Your task to perform on an android device: Empty the shopping cart on amazon.com. Add "macbook pro" to the cart on amazon.com Image 0: 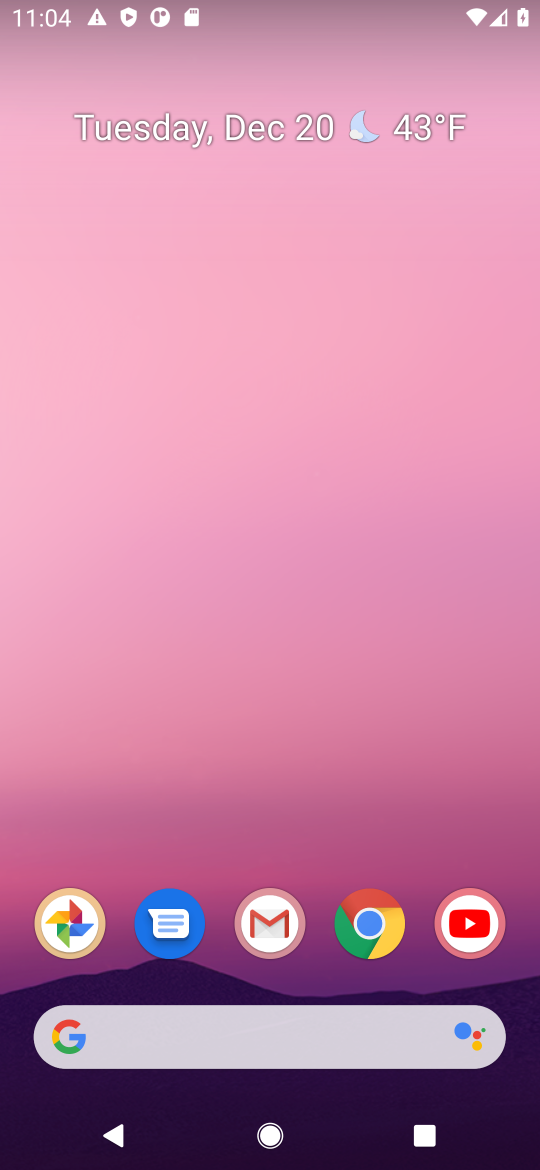
Step 0: click (363, 959)
Your task to perform on an android device: Empty the shopping cart on amazon.com. Add "macbook pro" to the cart on amazon.com Image 1: 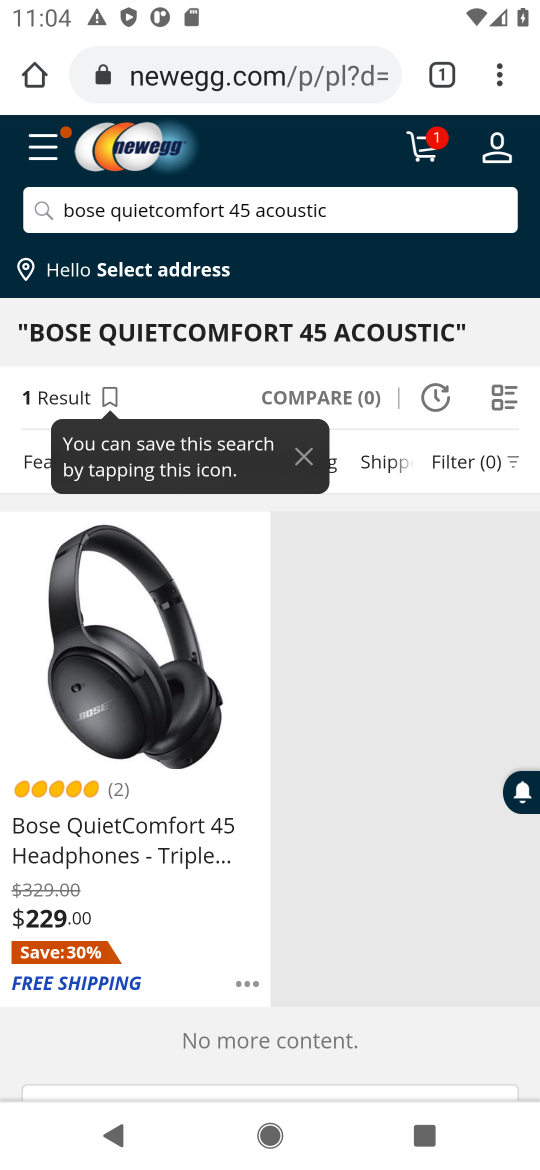
Step 1: click (238, 90)
Your task to perform on an android device: Empty the shopping cart on amazon.com. Add "macbook pro" to the cart on amazon.com Image 2: 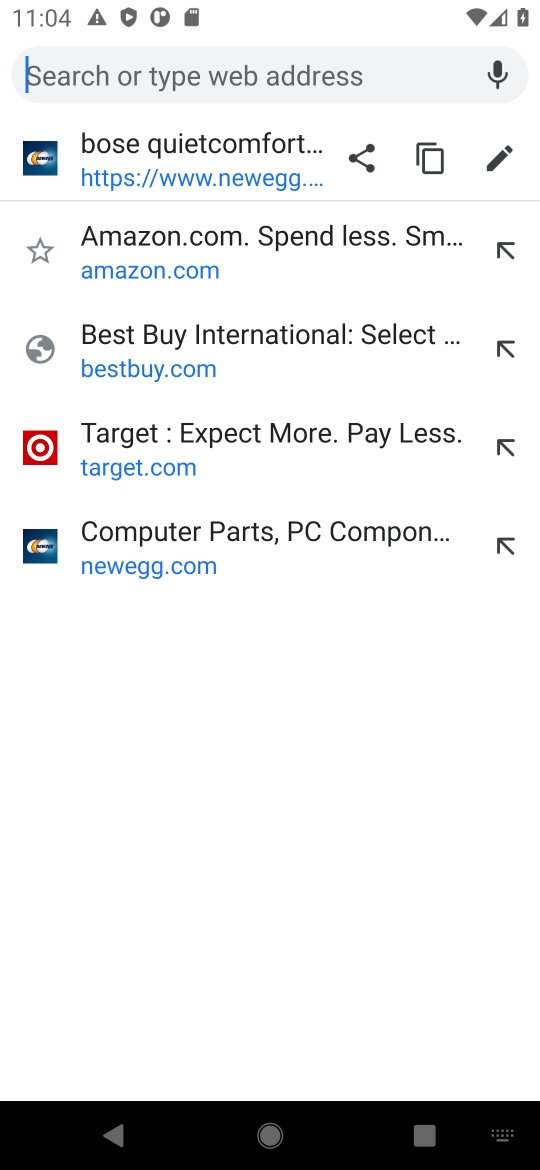
Step 2: type "amazon"
Your task to perform on an android device: Empty the shopping cart on amazon.com. Add "macbook pro" to the cart on amazon.com Image 3: 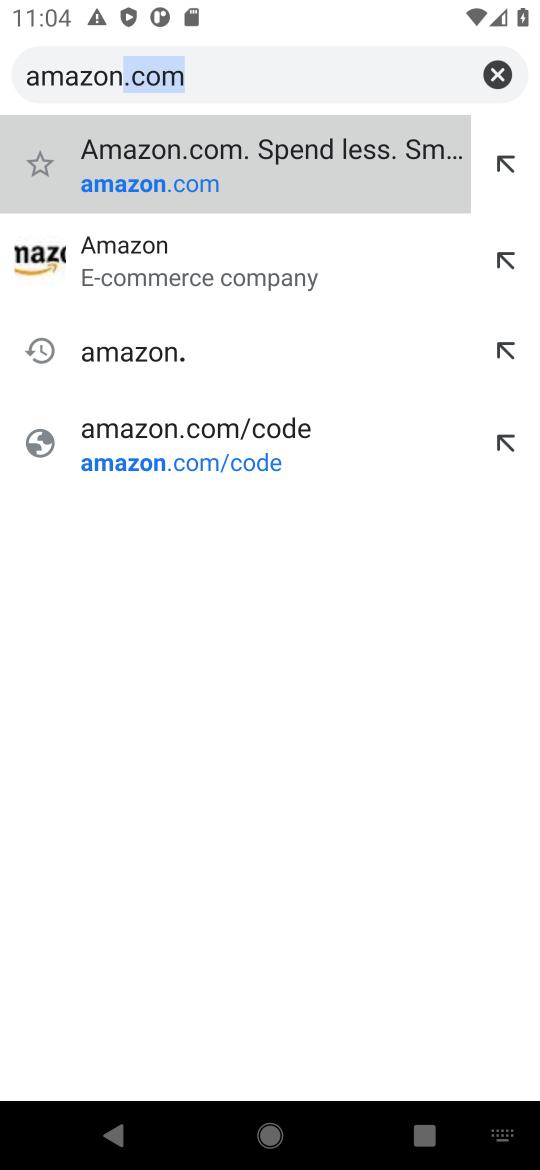
Step 3: click (129, 145)
Your task to perform on an android device: Empty the shopping cart on amazon.com. Add "macbook pro" to the cart on amazon.com Image 4: 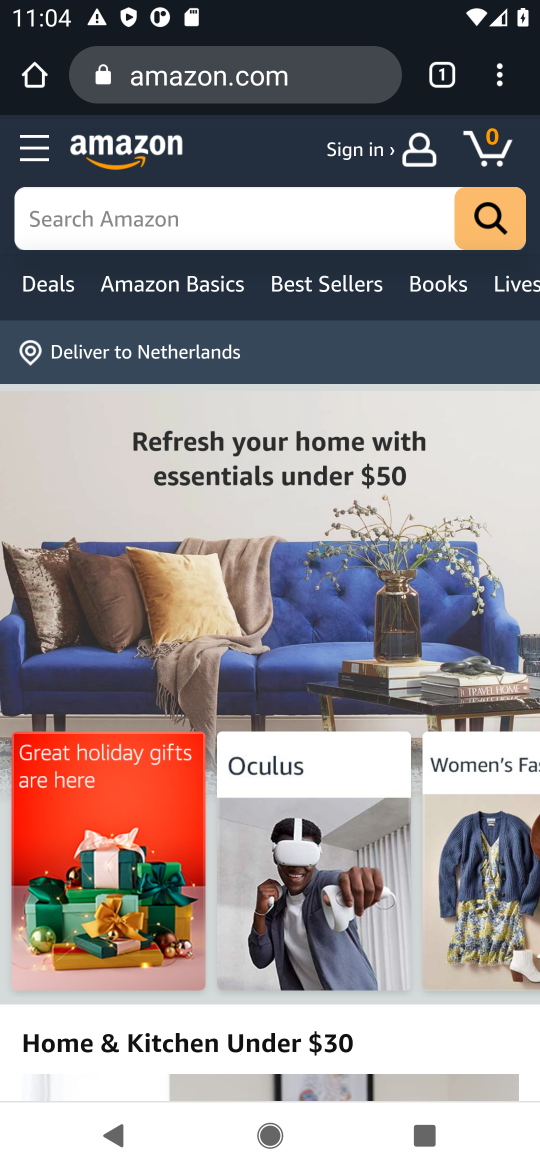
Step 4: click (168, 216)
Your task to perform on an android device: Empty the shopping cart on amazon.com. Add "macbook pro" to the cart on amazon.com Image 5: 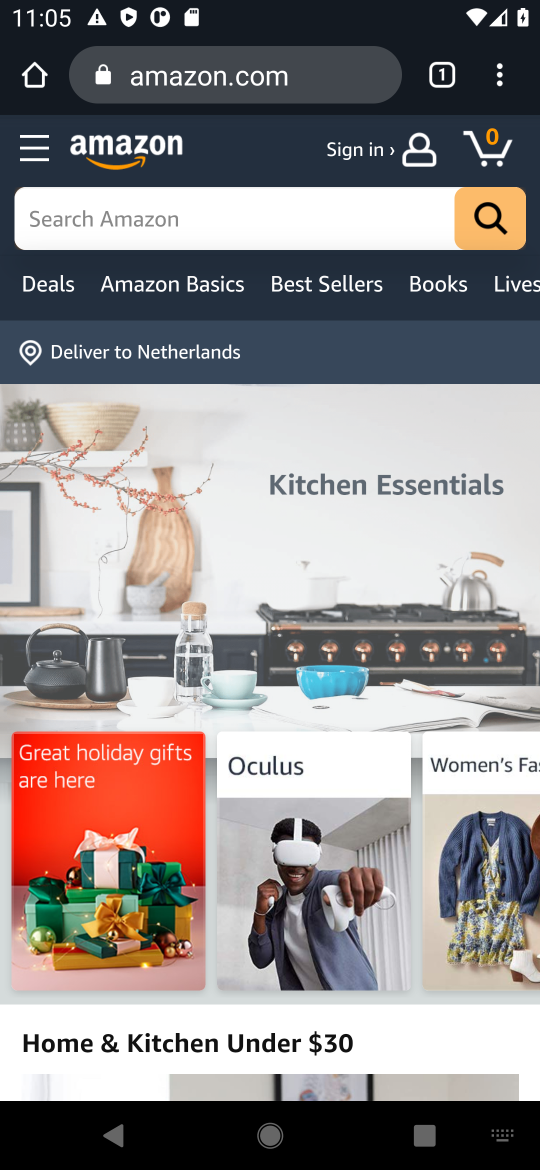
Step 5: type "macbook pro"
Your task to perform on an android device: Empty the shopping cart on amazon.com. Add "macbook pro" to the cart on amazon.com Image 6: 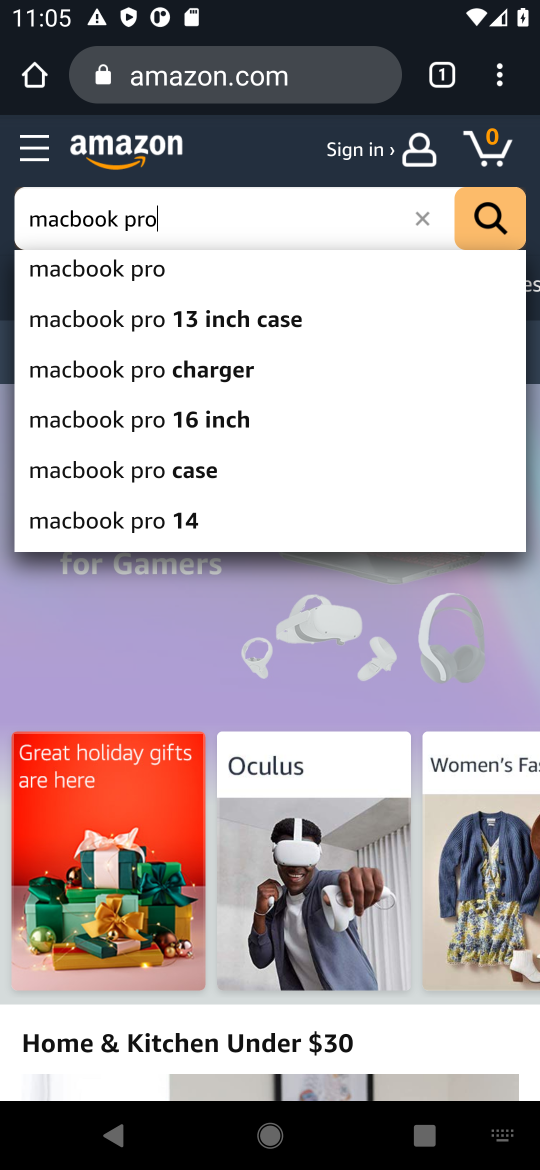
Step 6: click (123, 278)
Your task to perform on an android device: Empty the shopping cart on amazon.com. Add "macbook pro" to the cart on amazon.com Image 7: 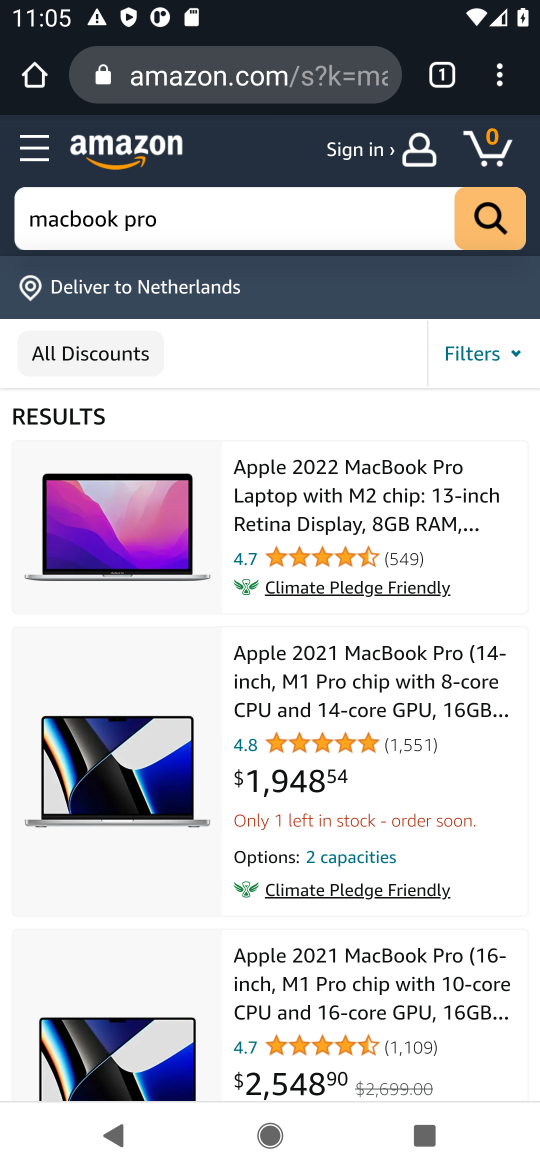
Step 7: click (327, 518)
Your task to perform on an android device: Empty the shopping cart on amazon.com. Add "macbook pro" to the cart on amazon.com Image 8: 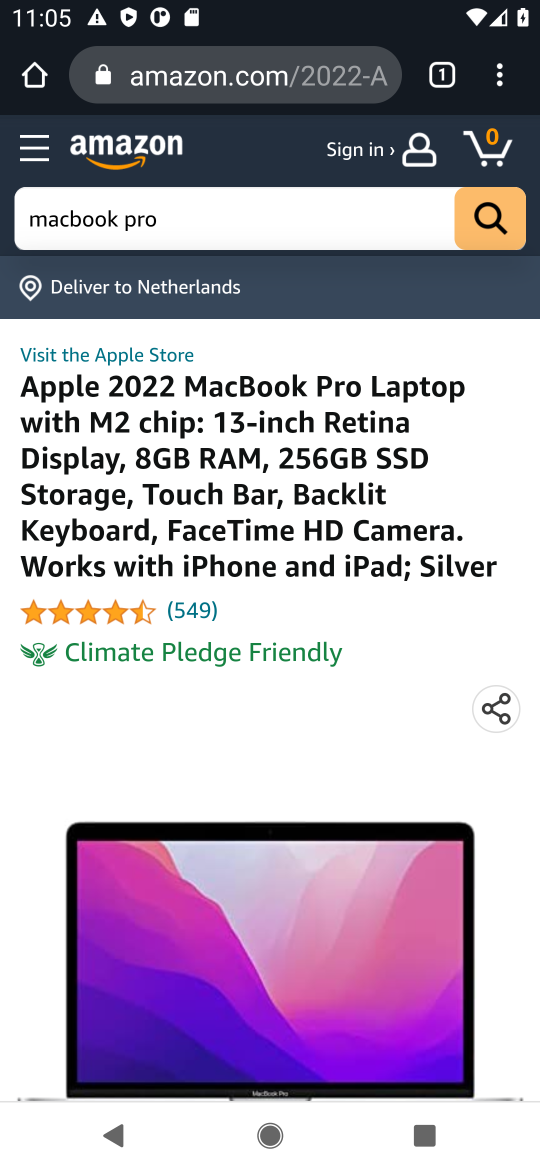
Step 8: drag from (357, 961) to (355, 533)
Your task to perform on an android device: Empty the shopping cart on amazon.com. Add "macbook pro" to the cart on amazon.com Image 9: 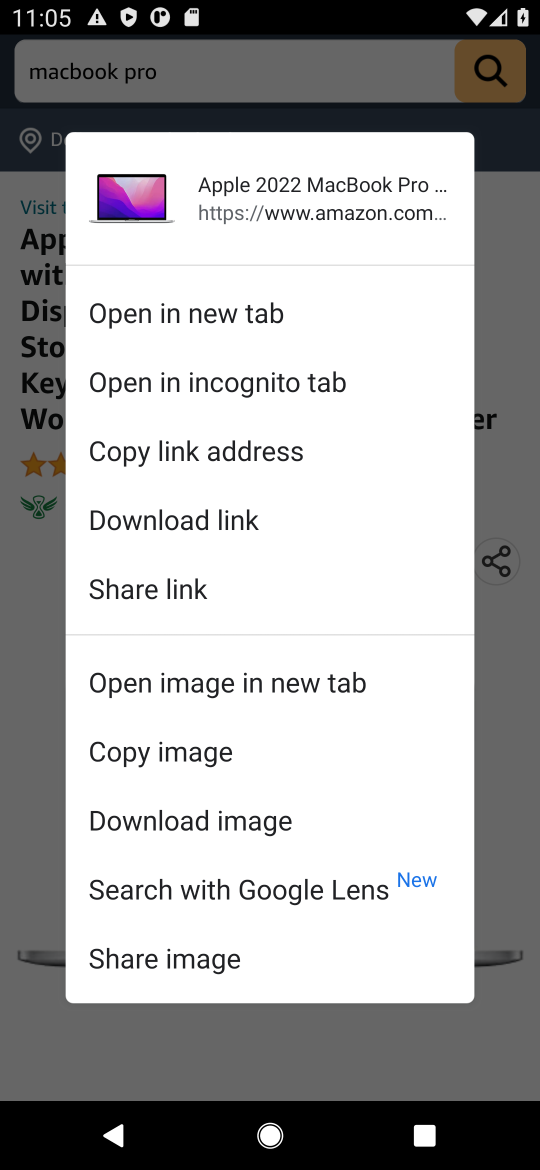
Step 9: click (270, 331)
Your task to perform on an android device: Empty the shopping cart on amazon.com. Add "macbook pro" to the cart on amazon.com Image 10: 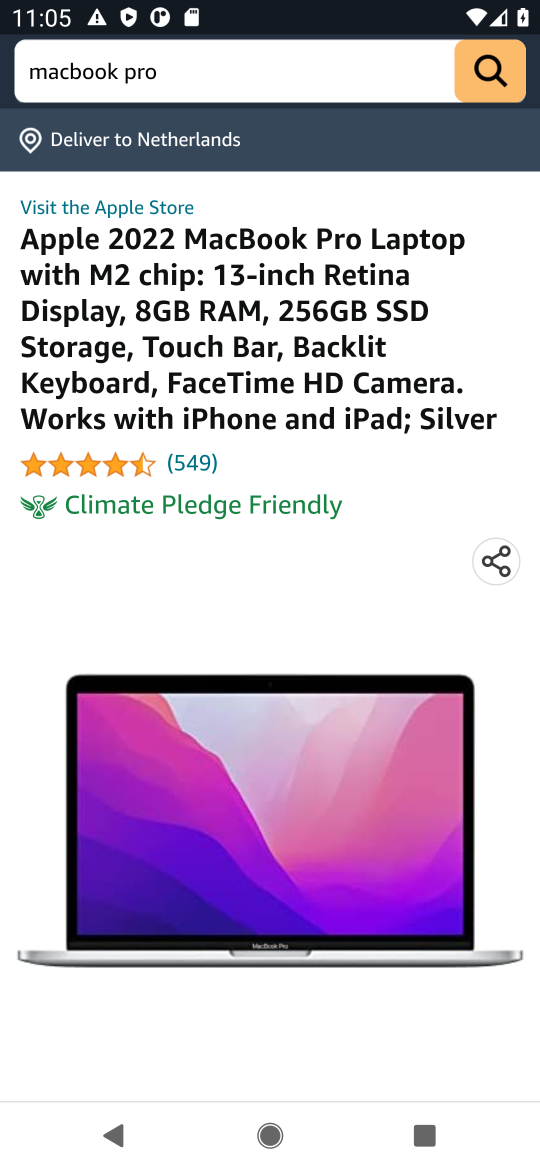
Step 10: task complete